Your task to perform on an android device: Open Yahoo.com Image 0: 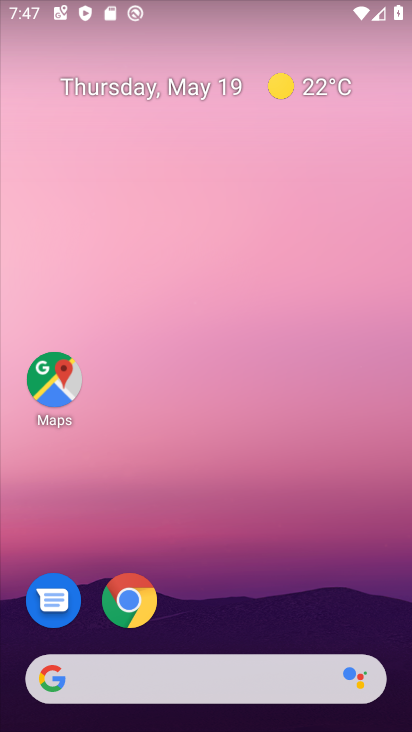
Step 0: drag from (238, 588) to (274, 244)
Your task to perform on an android device: Open Yahoo.com Image 1: 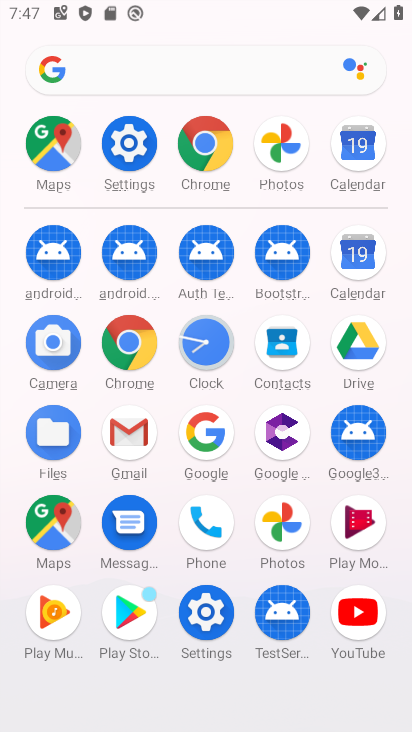
Step 1: click (128, 343)
Your task to perform on an android device: Open Yahoo.com Image 2: 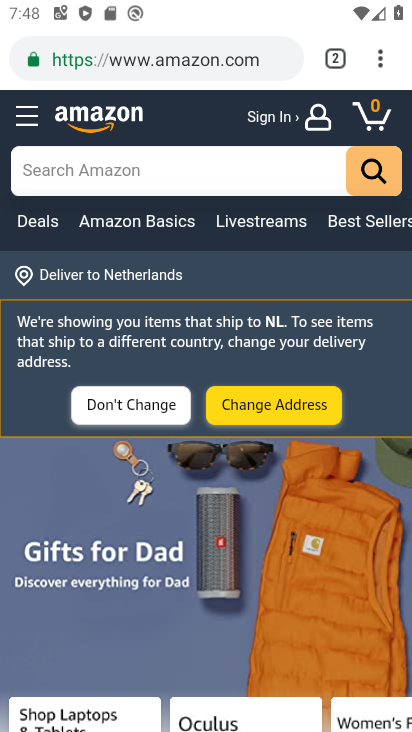
Step 2: click (195, 66)
Your task to perform on an android device: Open Yahoo.com Image 3: 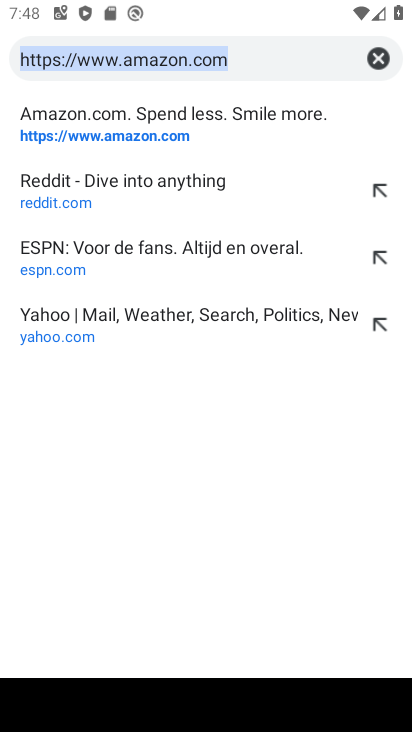
Step 3: click (83, 312)
Your task to perform on an android device: Open Yahoo.com Image 4: 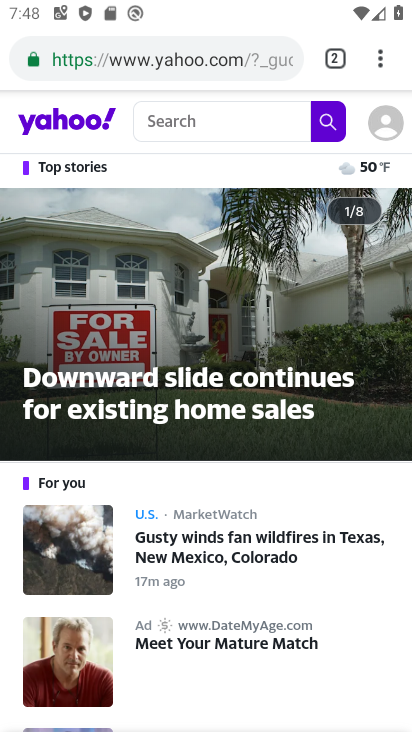
Step 4: task complete